Your task to perform on an android device: Go to Google Image 0: 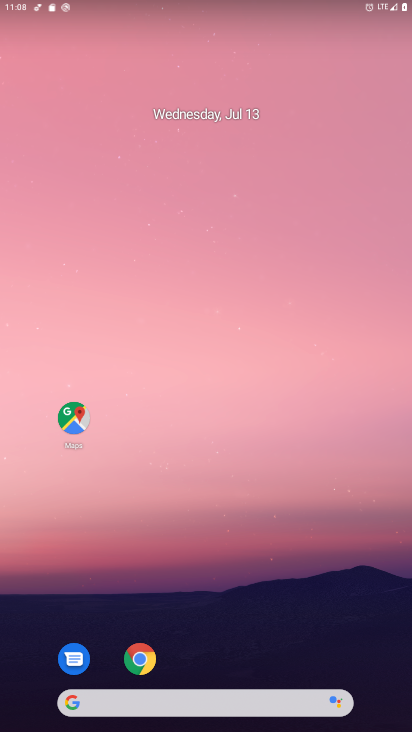
Step 0: drag from (210, 656) to (203, 52)
Your task to perform on an android device: Go to Google Image 1: 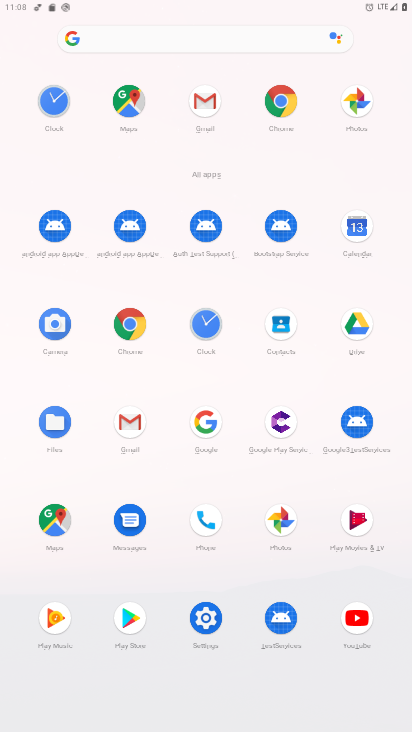
Step 1: click (202, 417)
Your task to perform on an android device: Go to Google Image 2: 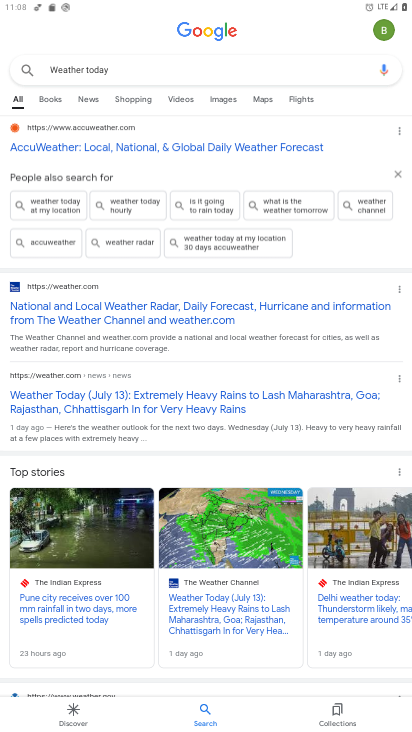
Step 2: click (74, 709)
Your task to perform on an android device: Go to Google Image 3: 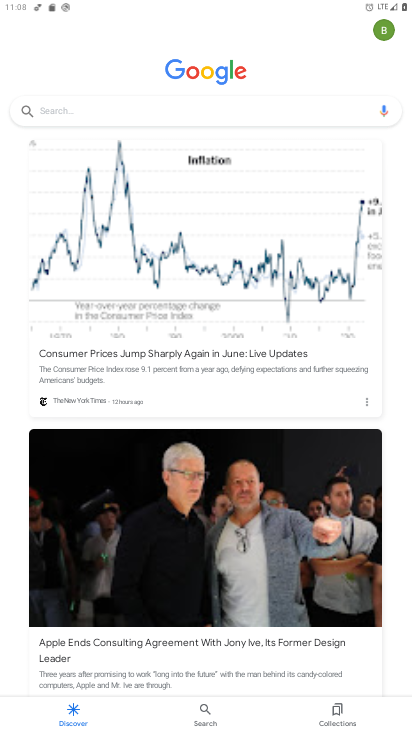
Step 3: task complete